Your task to perform on an android device: toggle improve location accuracy Image 0: 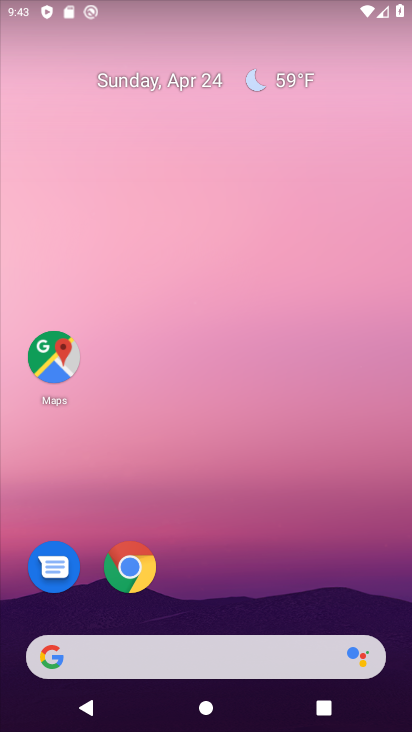
Step 0: drag from (375, 242) to (335, 4)
Your task to perform on an android device: toggle improve location accuracy Image 1: 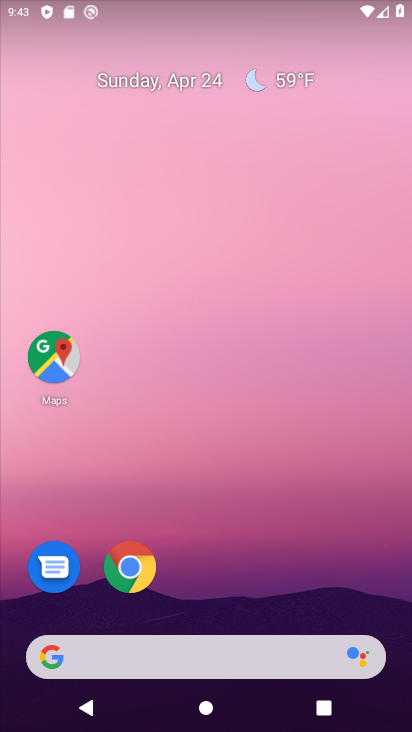
Step 1: drag from (356, 187) to (349, 125)
Your task to perform on an android device: toggle improve location accuracy Image 2: 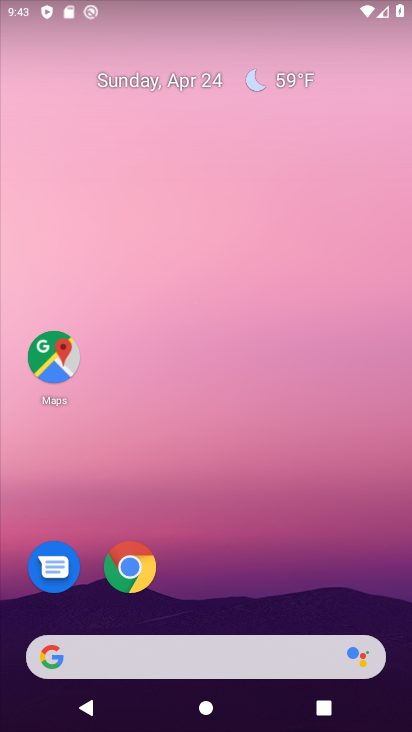
Step 2: drag from (393, 607) to (352, 72)
Your task to perform on an android device: toggle improve location accuracy Image 3: 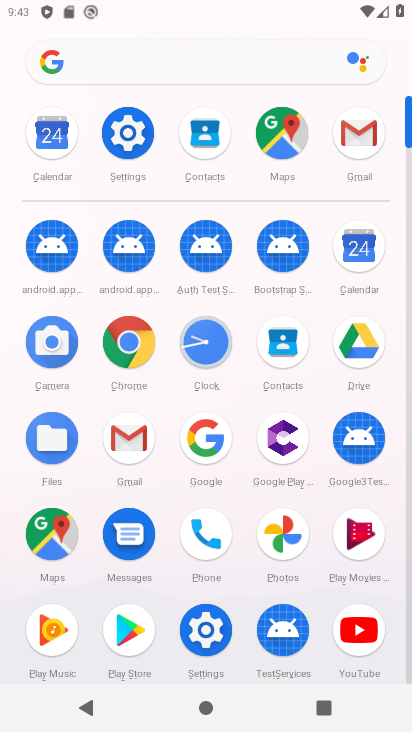
Step 3: click (130, 134)
Your task to perform on an android device: toggle improve location accuracy Image 4: 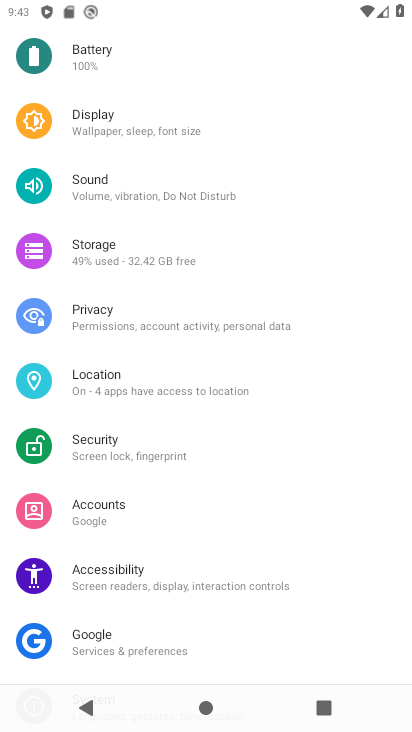
Step 4: click (83, 383)
Your task to perform on an android device: toggle improve location accuracy Image 5: 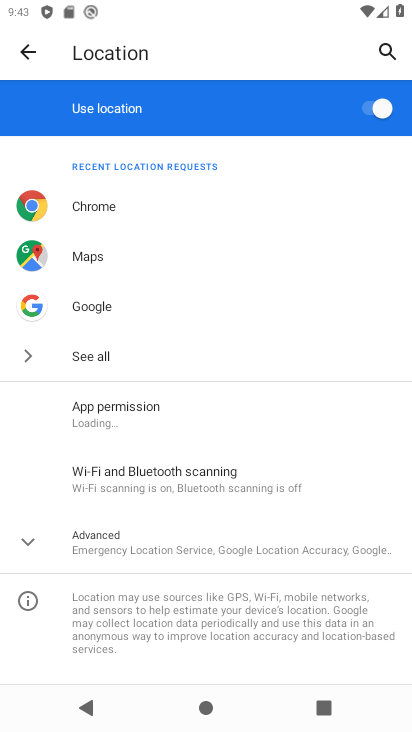
Step 5: click (21, 534)
Your task to perform on an android device: toggle improve location accuracy Image 6: 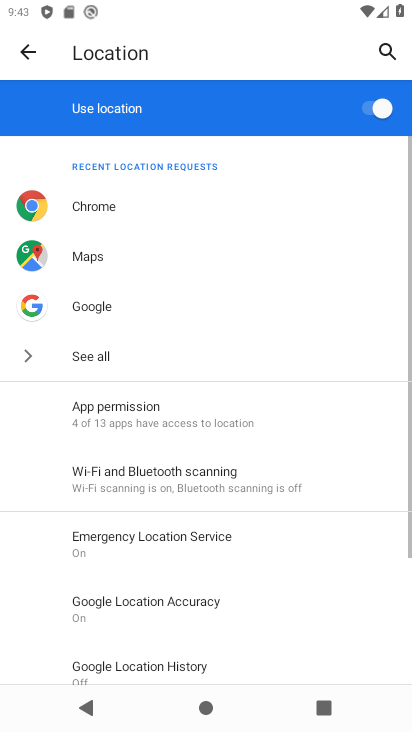
Step 6: drag from (337, 405) to (330, 194)
Your task to perform on an android device: toggle improve location accuracy Image 7: 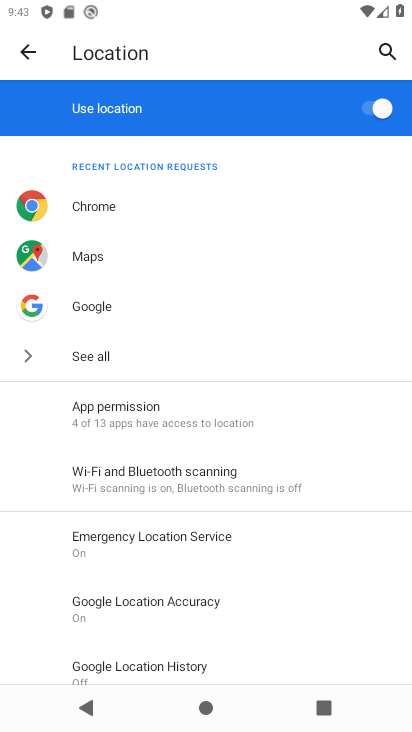
Step 7: click (336, 380)
Your task to perform on an android device: toggle improve location accuracy Image 8: 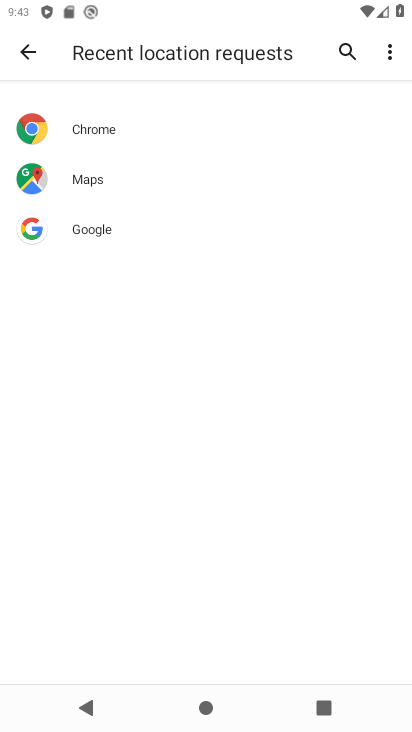
Step 8: drag from (325, 593) to (344, 333)
Your task to perform on an android device: toggle improve location accuracy Image 9: 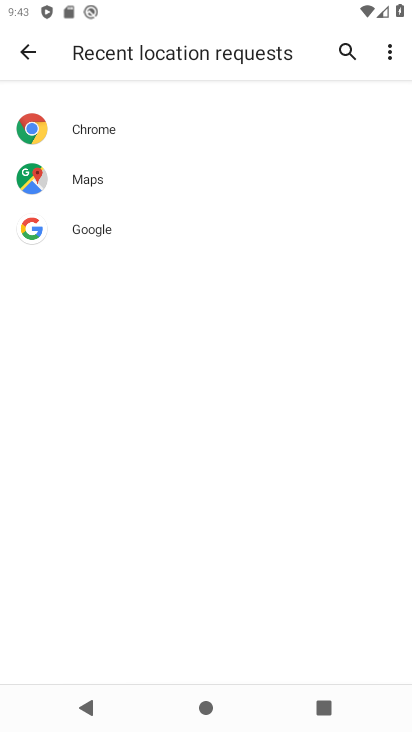
Step 9: click (17, 45)
Your task to perform on an android device: toggle improve location accuracy Image 10: 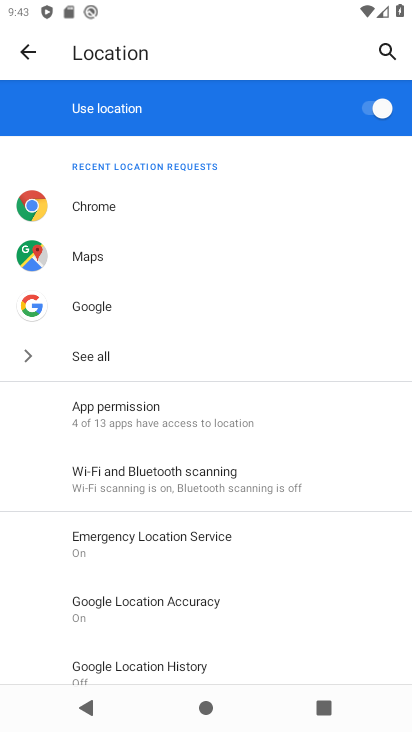
Step 10: click (138, 604)
Your task to perform on an android device: toggle improve location accuracy Image 11: 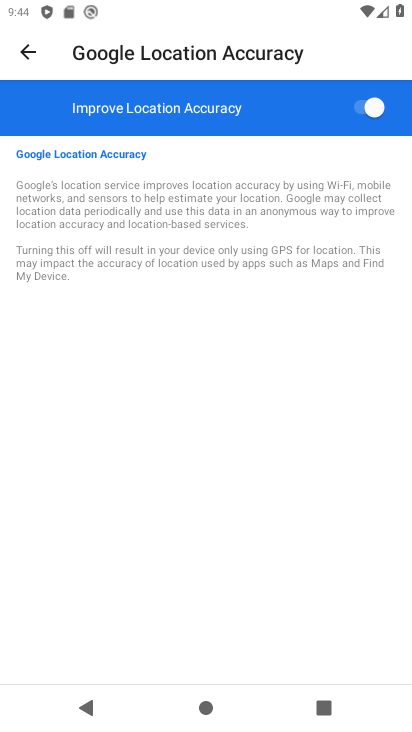
Step 11: click (358, 106)
Your task to perform on an android device: toggle improve location accuracy Image 12: 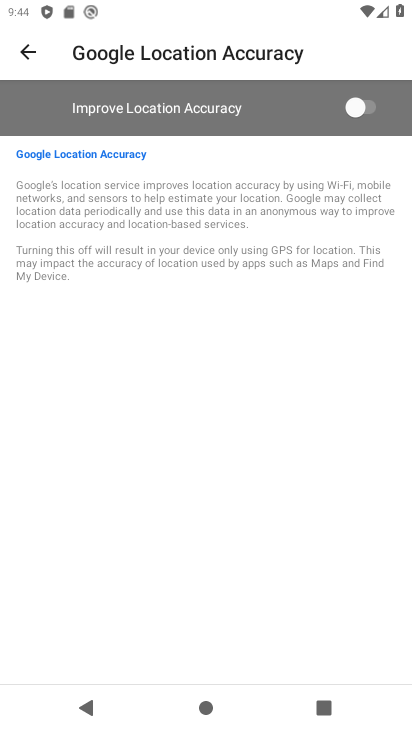
Step 12: task complete